Your task to perform on an android device: open a bookmark in the chrome app Image 0: 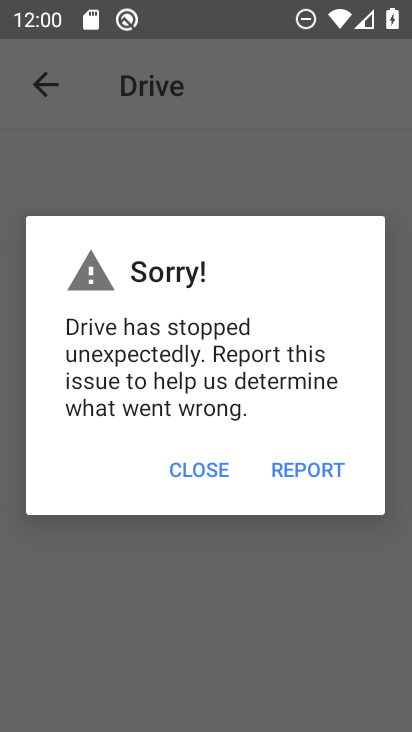
Step 0: press home button
Your task to perform on an android device: open a bookmark in the chrome app Image 1: 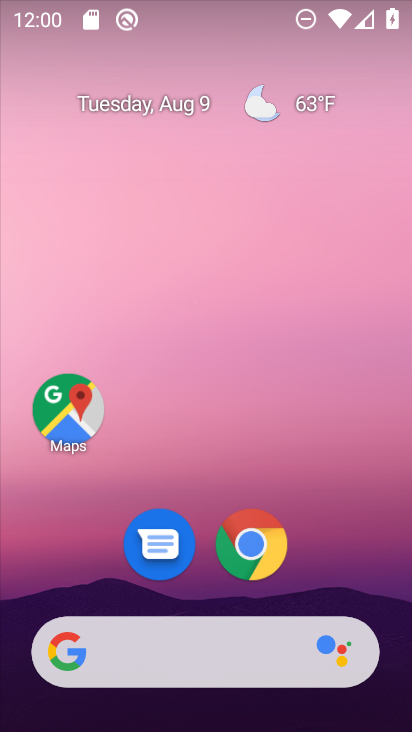
Step 1: click (246, 546)
Your task to perform on an android device: open a bookmark in the chrome app Image 2: 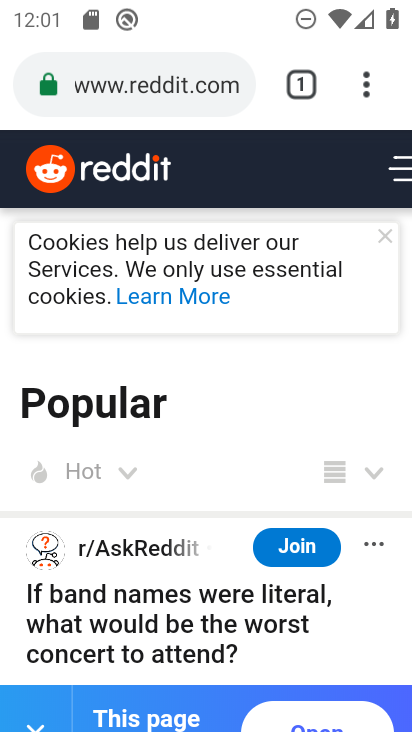
Step 2: click (367, 86)
Your task to perform on an android device: open a bookmark in the chrome app Image 3: 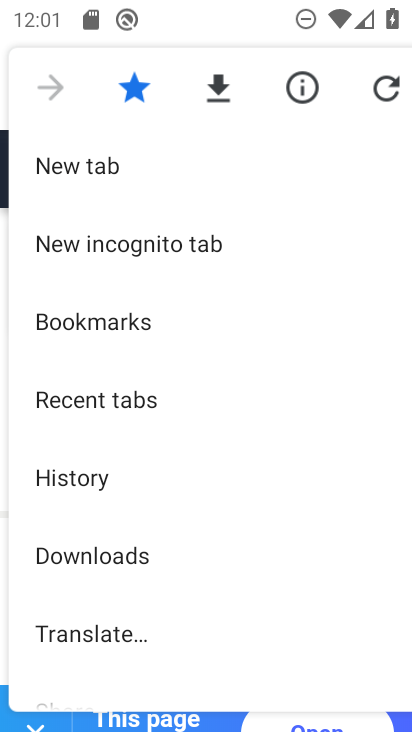
Step 3: click (106, 322)
Your task to perform on an android device: open a bookmark in the chrome app Image 4: 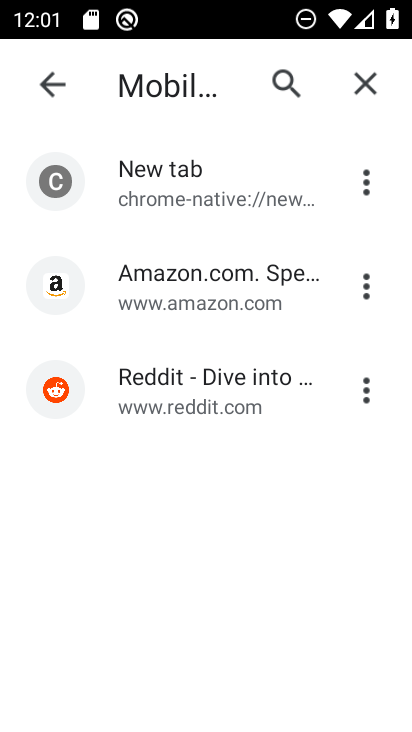
Step 4: task complete